Your task to perform on an android device: open chrome and create a bookmark for the current page Image 0: 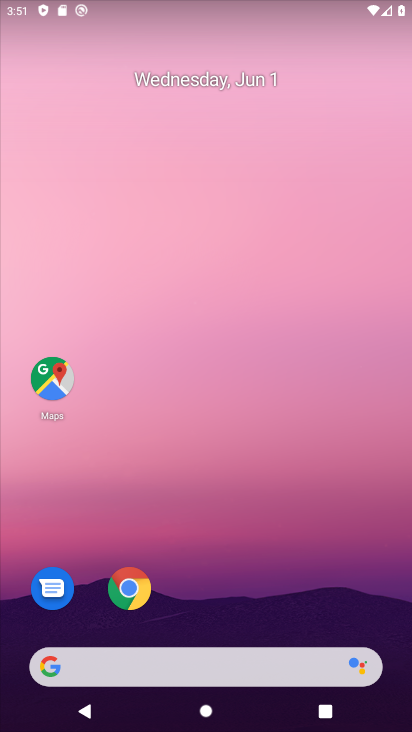
Step 0: drag from (247, 604) to (163, 223)
Your task to perform on an android device: open chrome and create a bookmark for the current page Image 1: 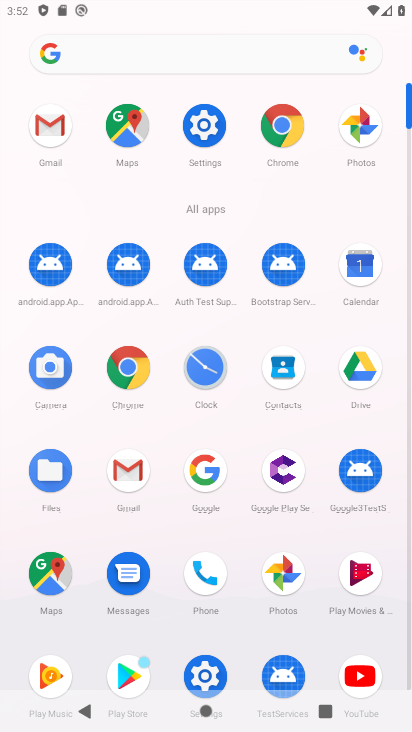
Step 1: click (286, 110)
Your task to perform on an android device: open chrome and create a bookmark for the current page Image 2: 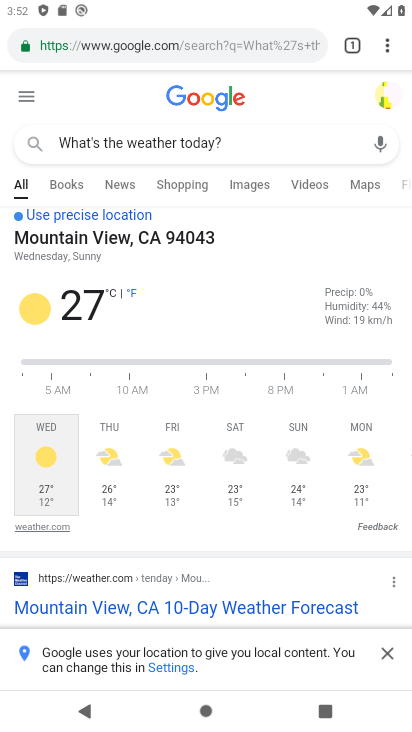
Step 2: click (386, 45)
Your task to perform on an android device: open chrome and create a bookmark for the current page Image 3: 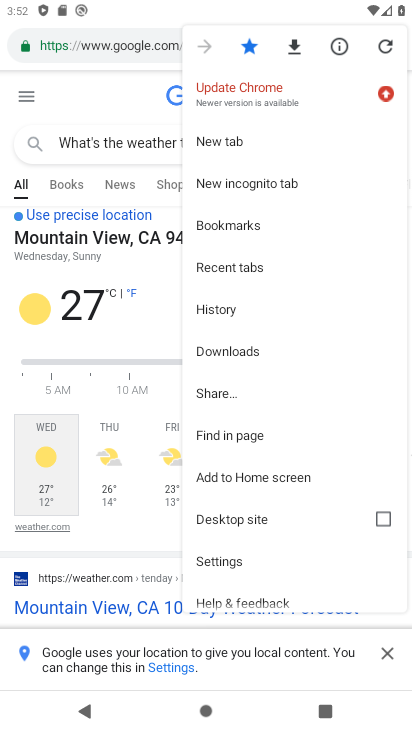
Step 3: task complete